Your task to perform on an android device: Turn off the flashlight Image 0: 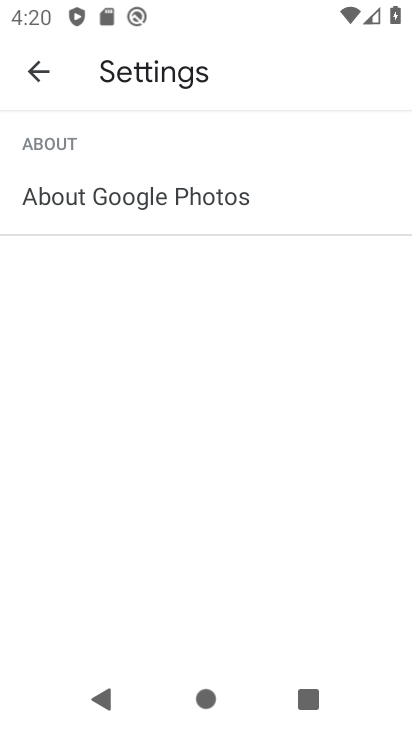
Step 0: press home button
Your task to perform on an android device: Turn off the flashlight Image 1: 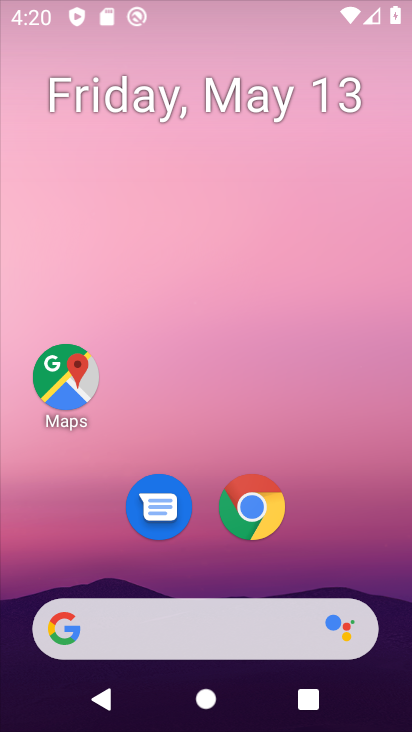
Step 1: task complete